Your task to perform on an android device: turn off location history Image 0: 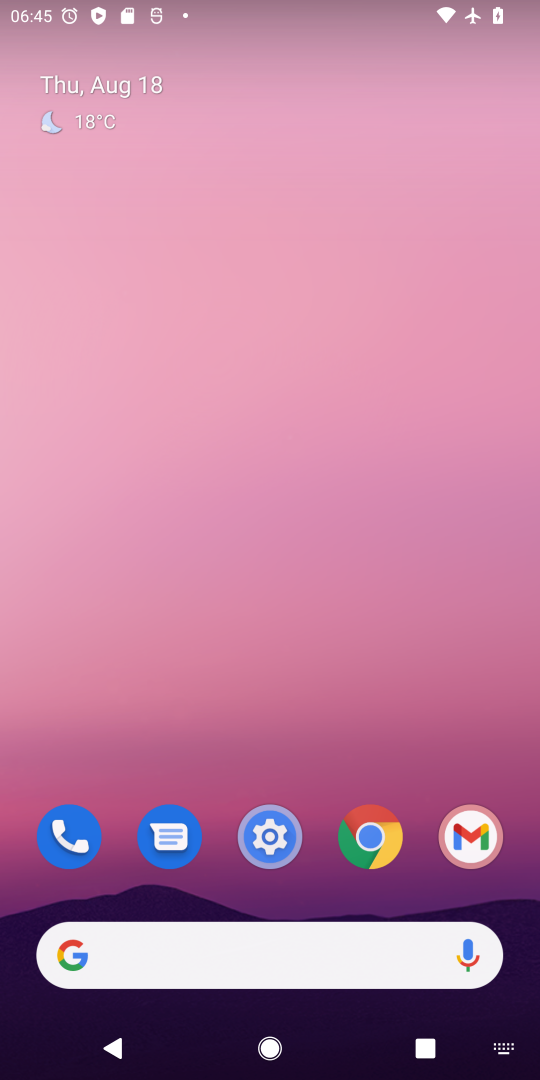
Step 0: press home button
Your task to perform on an android device: turn off location history Image 1: 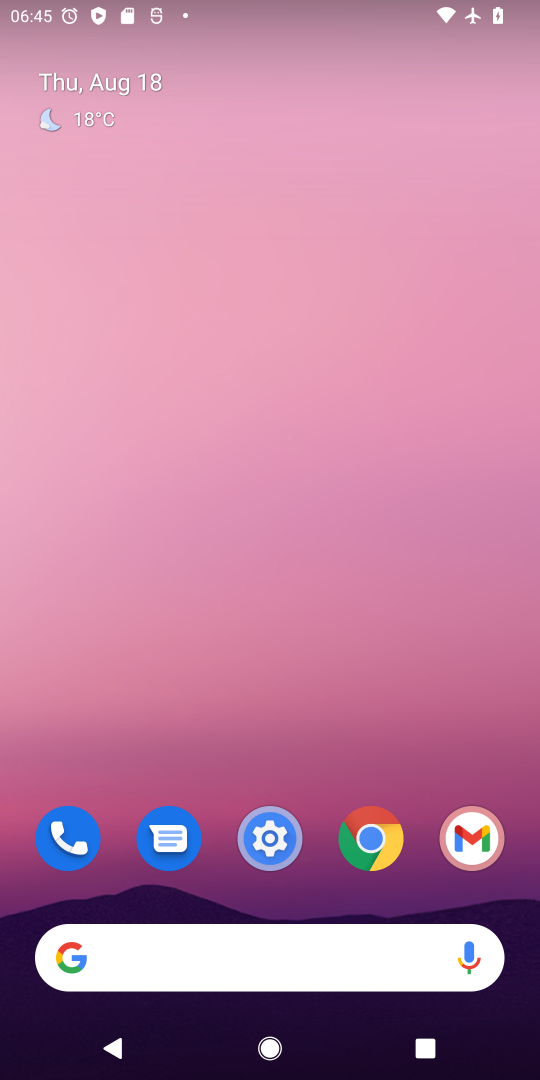
Step 1: click (274, 848)
Your task to perform on an android device: turn off location history Image 2: 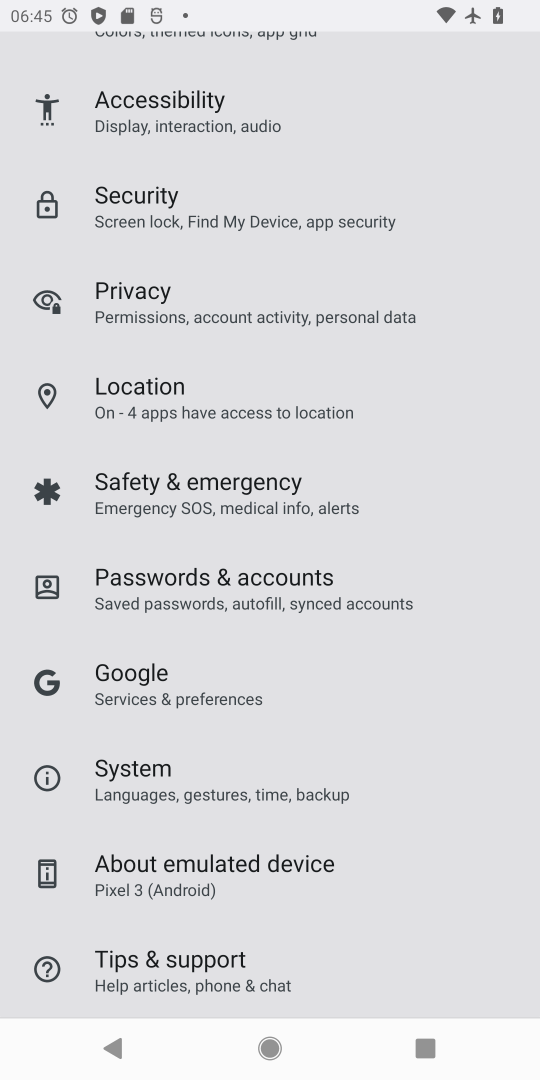
Step 2: click (142, 404)
Your task to perform on an android device: turn off location history Image 3: 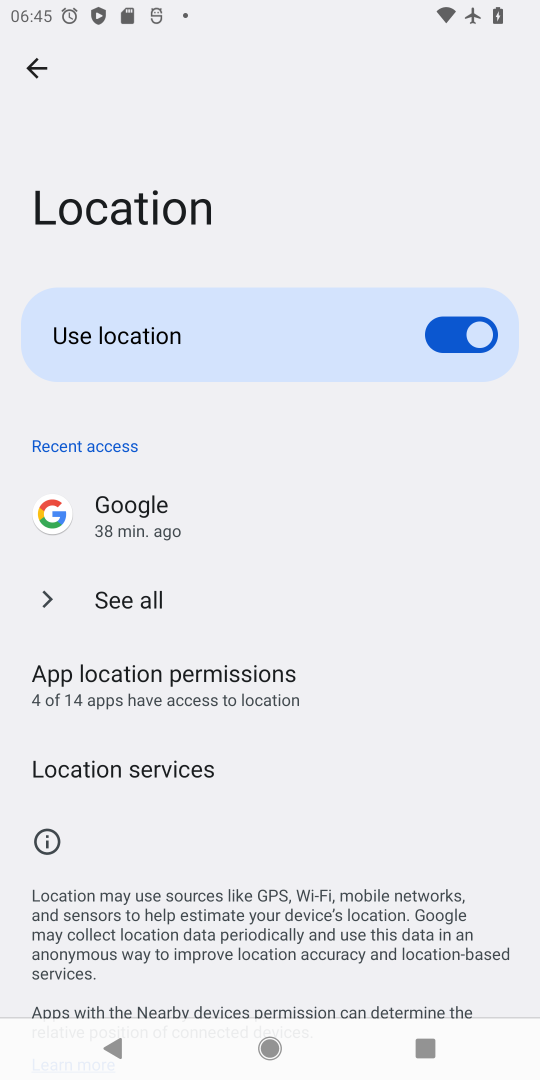
Step 3: click (164, 775)
Your task to perform on an android device: turn off location history Image 4: 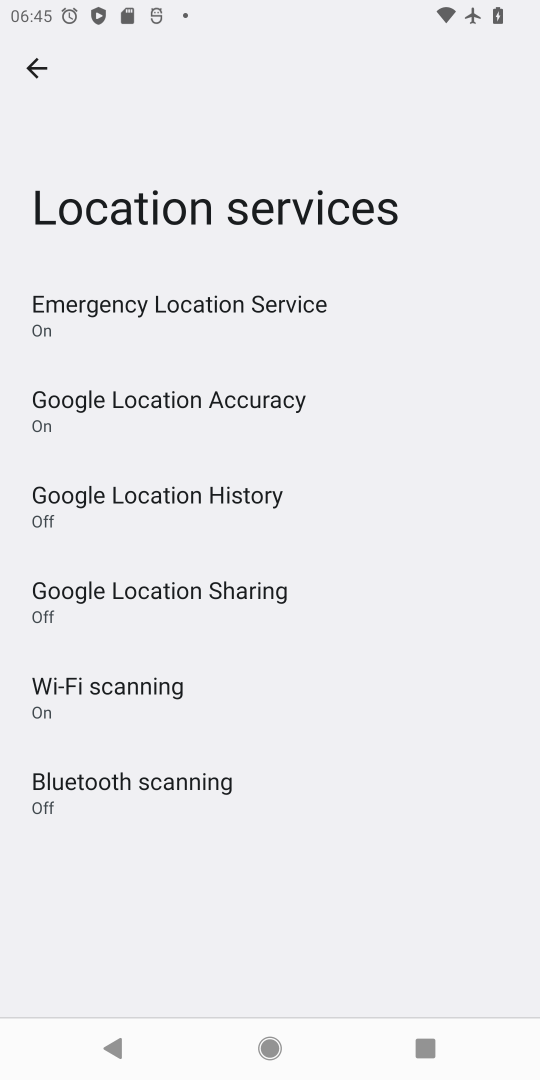
Step 4: click (188, 504)
Your task to perform on an android device: turn off location history Image 5: 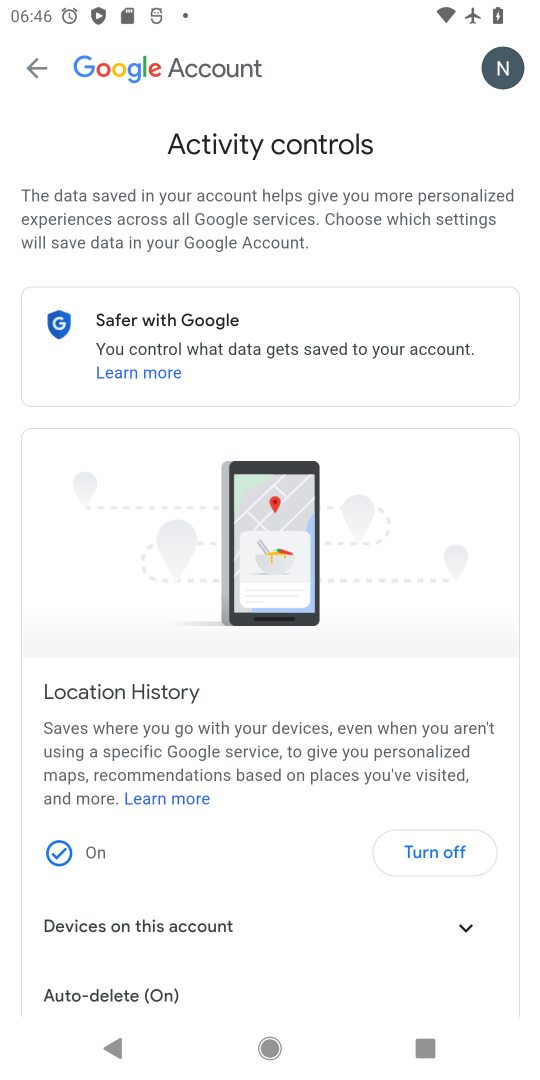
Step 5: click (438, 855)
Your task to perform on an android device: turn off location history Image 6: 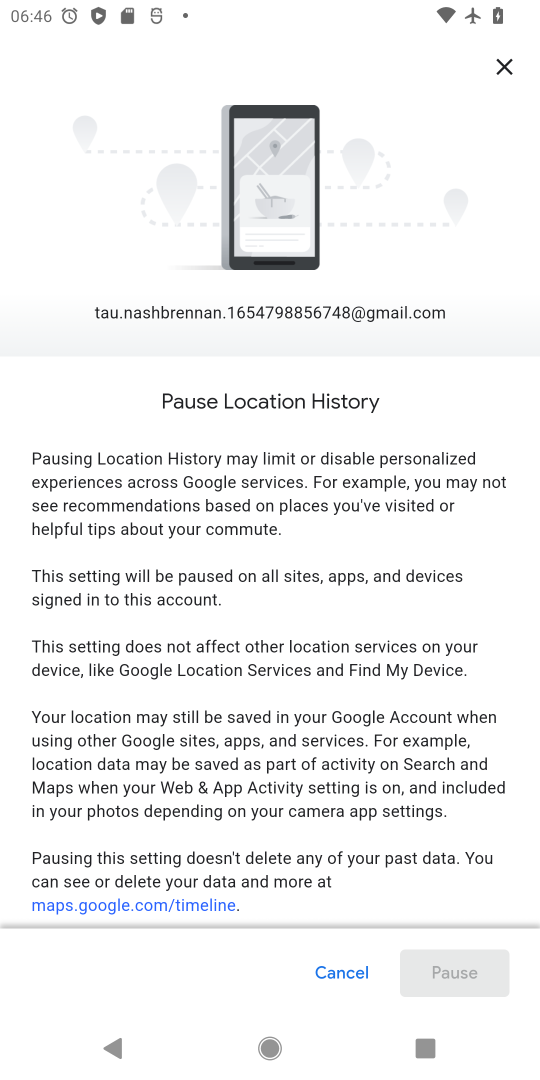
Step 6: drag from (490, 858) to (535, 98)
Your task to perform on an android device: turn off location history Image 7: 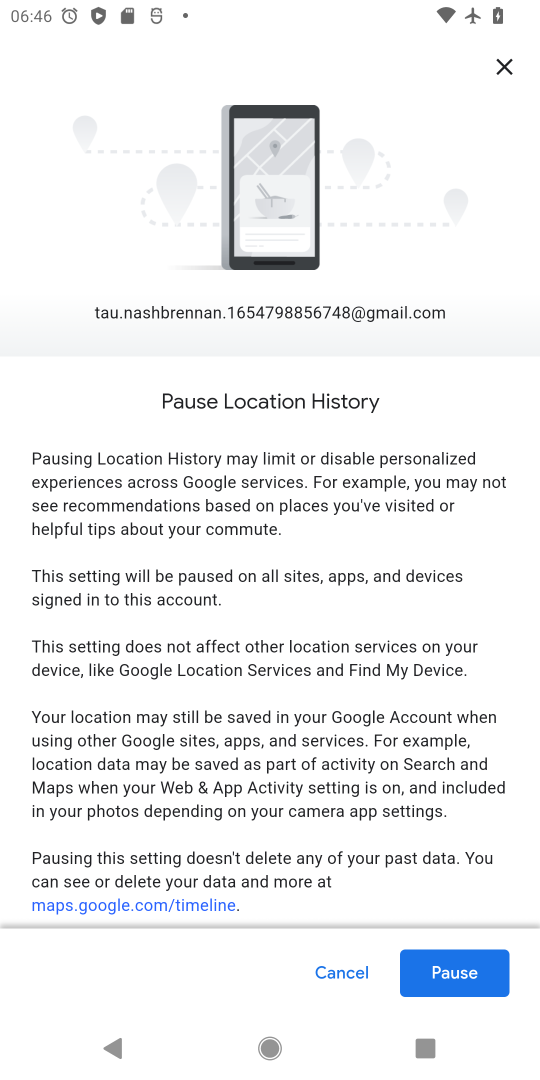
Step 7: click (472, 972)
Your task to perform on an android device: turn off location history Image 8: 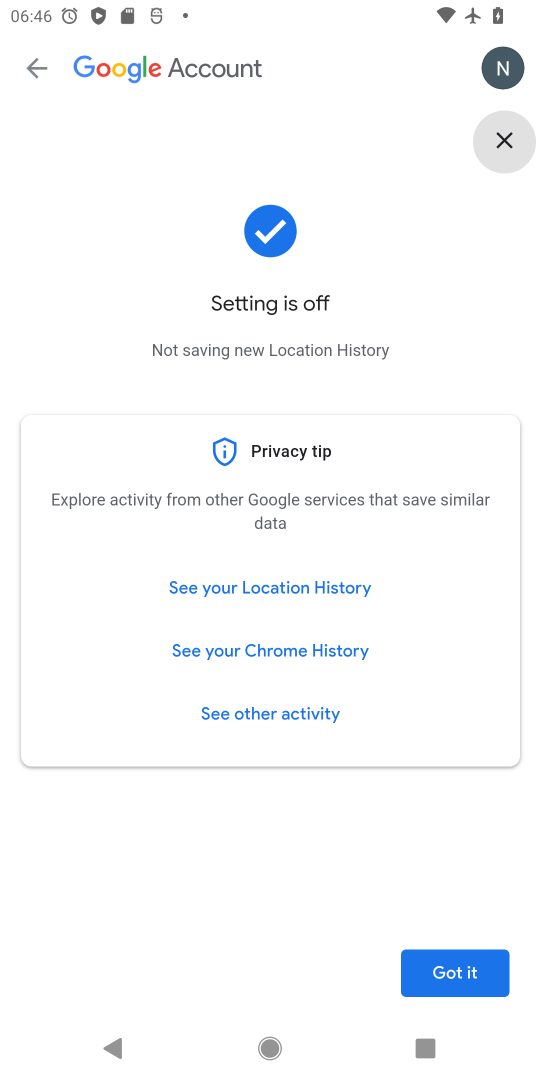
Step 8: click (447, 973)
Your task to perform on an android device: turn off location history Image 9: 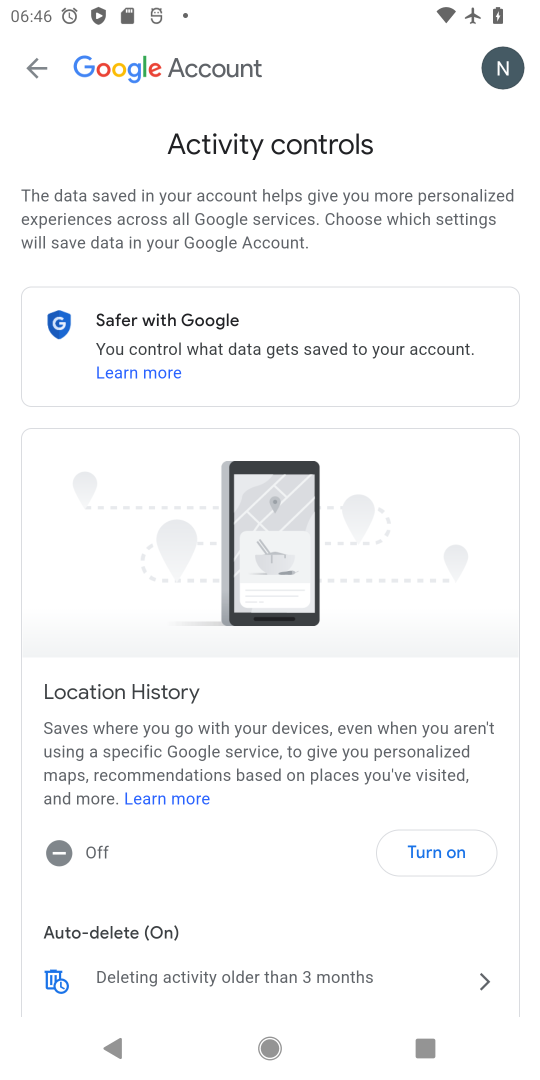
Step 9: task complete